Your task to perform on an android device: empty trash in google photos Image 0: 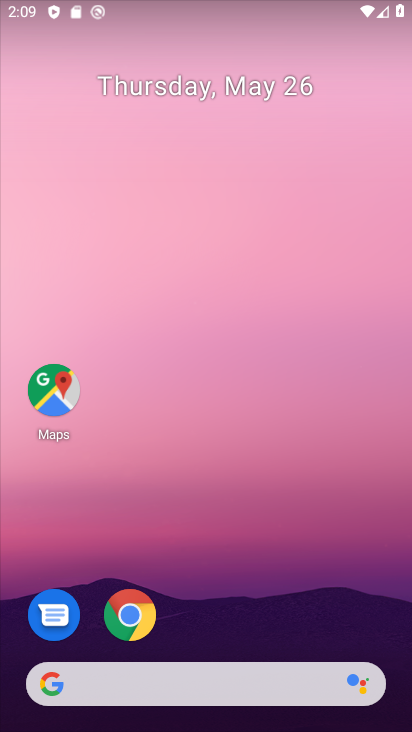
Step 0: drag from (178, 661) to (291, 131)
Your task to perform on an android device: empty trash in google photos Image 1: 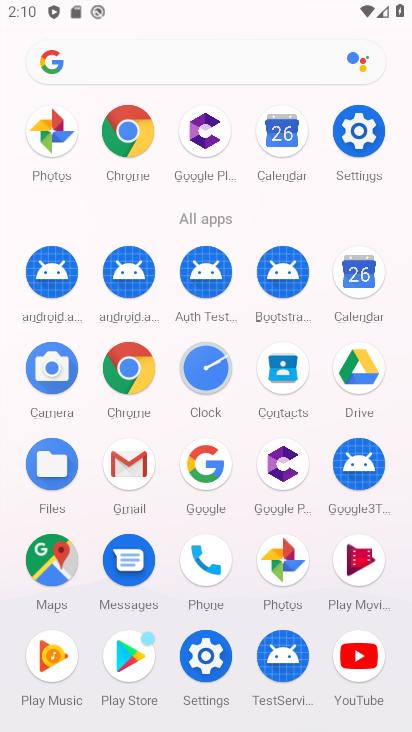
Step 1: click (269, 554)
Your task to perform on an android device: empty trash in google photos Image 2: 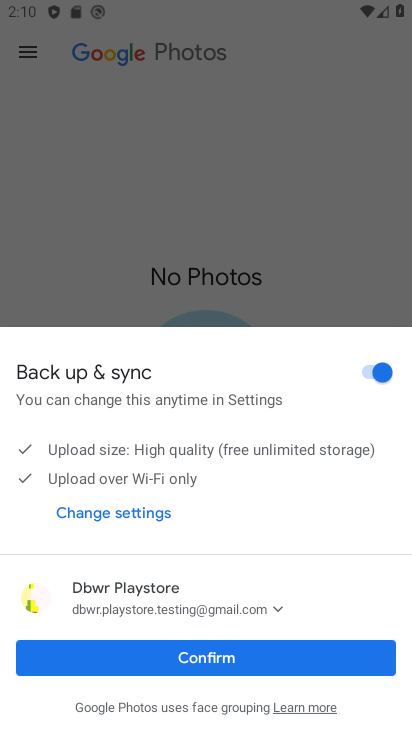
Step 2: click (272, 669)
Your task to perform on an android device: empty trash in google photos Image 3: 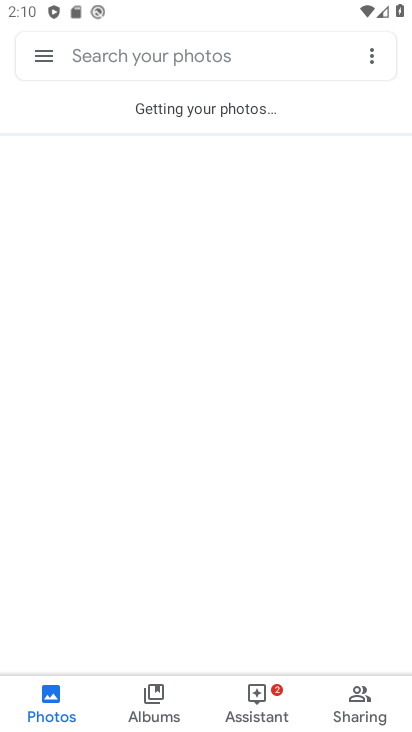
Step 3: click (35, 62)
Your task to perform on an android device: empty trash in google photos Image 4: 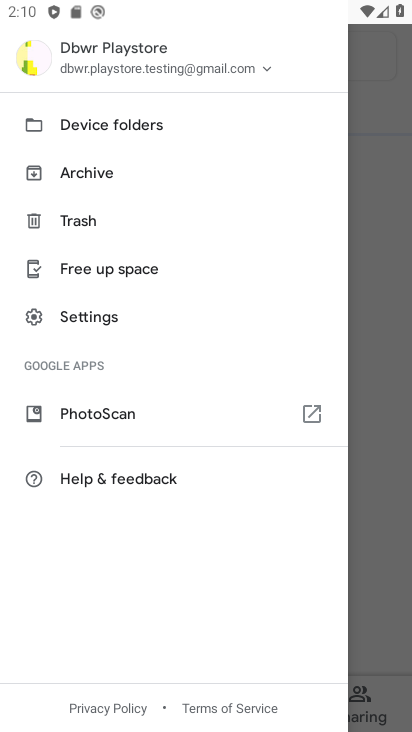
Step 4: click (118, 210)
Your task to perform on an android device: empty trash in google photos Image 5: 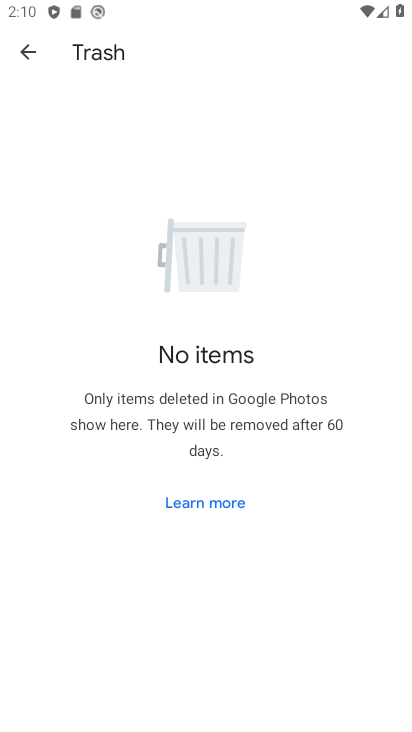
Step 5: task complete